Your task to perform on an android device: move an email to a new category in the gmail app Image 0: 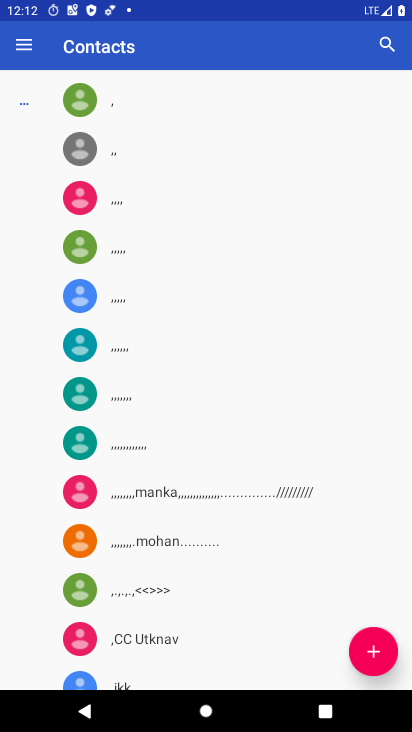
Step 0: press home button
Your task to perform on an android device: move an email to a new category in the gmail app Image 1: 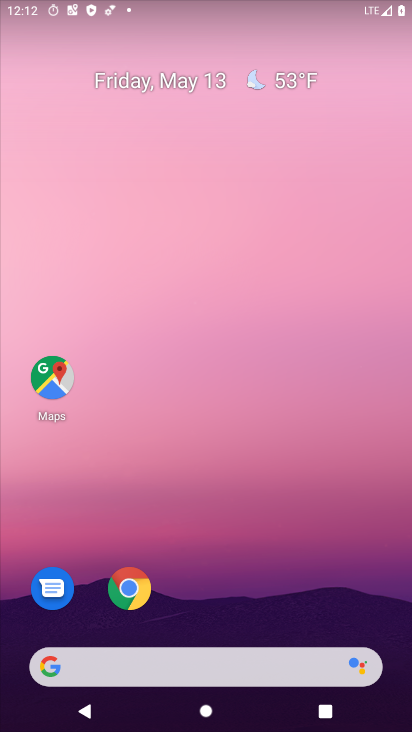
Step 1: drag from (306, 614) to (277, 172)
Your task to perform on an android device: move an email to a new category in the gmail app Image 2: 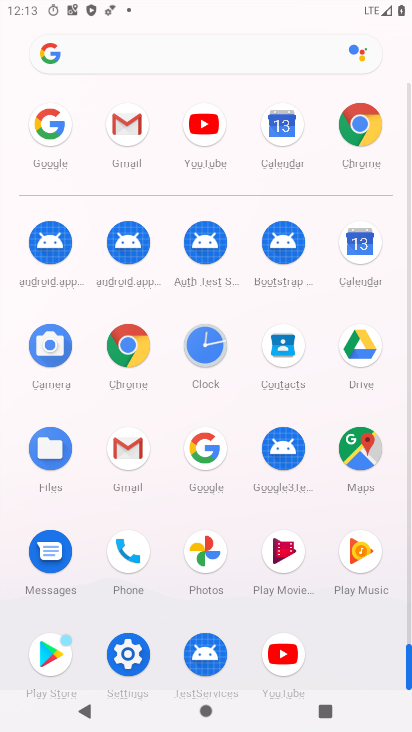
Step 2: click (129, 116)
Your task to perform on an android device: move an email to a new category in the gmail app Image 3: 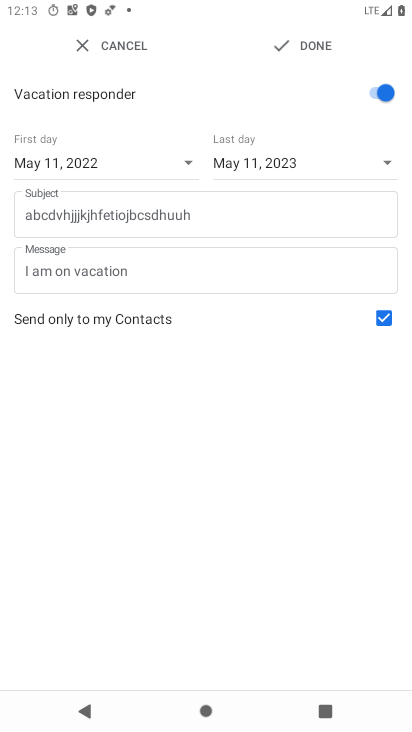
Step 3: click (86, 45)
Your task to perform on an android device: move an email to a new category in the gmail app Image 4: 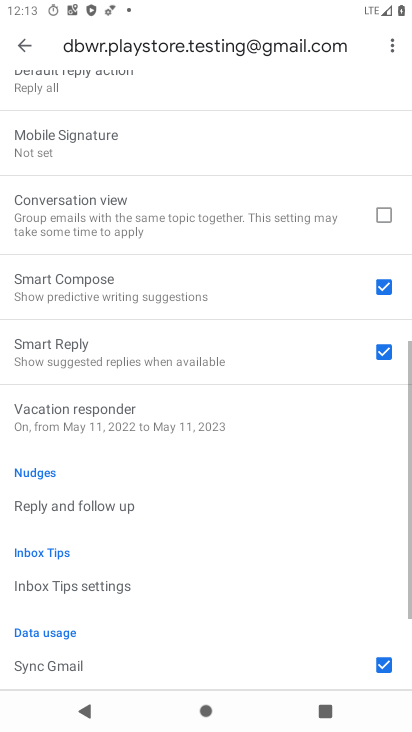
Step 4: click (16, 44)
Your task to perform on an android device: move an email to a new category in the gmail app Image 5: 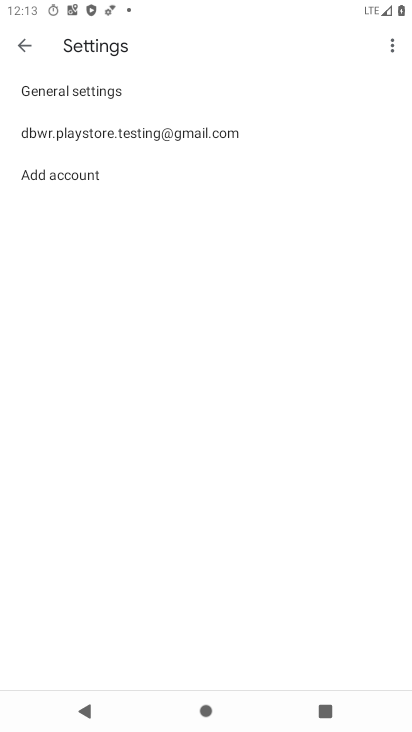
Step 5: click (32, 34)
Your task to perform on an android device: move an email to a new category in the gmail app Image 6: 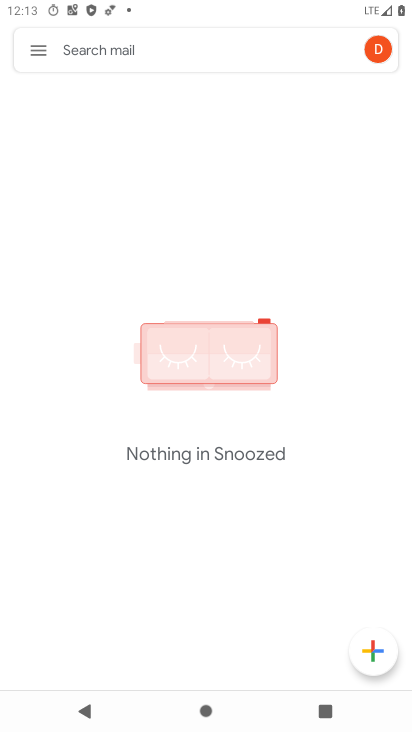
Step 6: click (46, 44)
Your task to perform on an android device: move an email to a new category in the gmail app Image 7: 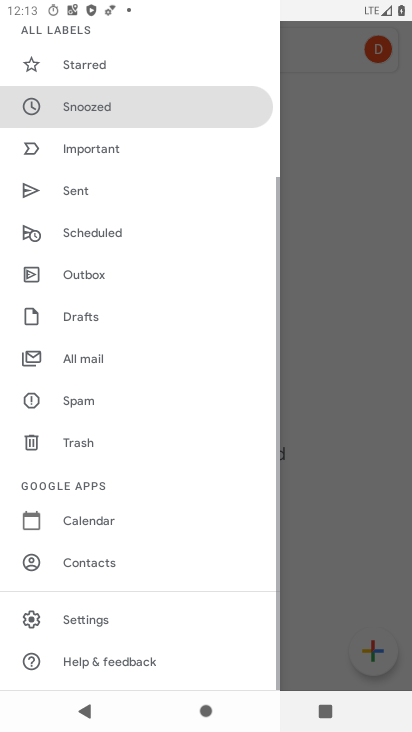
Step 7: click (129, 358)
Your task to perform on an android device: move an email to a new category in the gmail app Image 8: 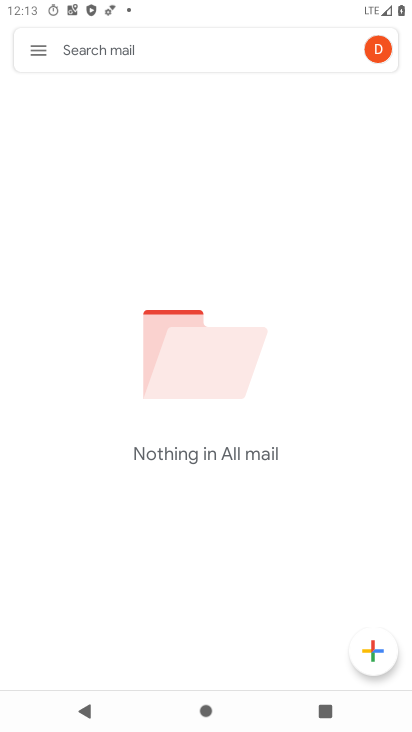
Step 8: task complete